Your task to perform on an android device: turn on bluetooth scan Image 0: 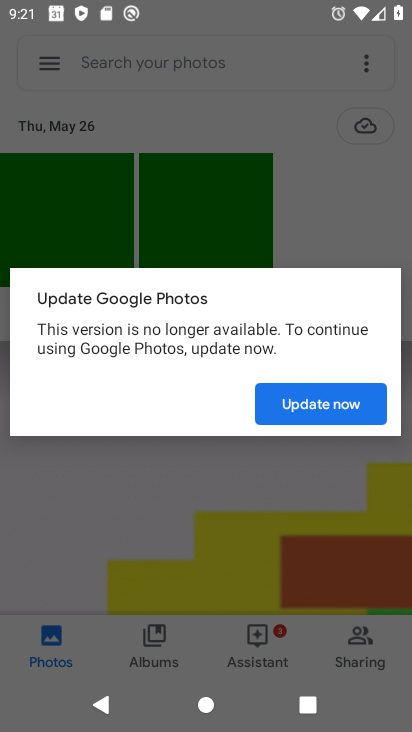
Step 0: press home button
Your task to perform on an android device: turn on bluetooth scan Image 1: 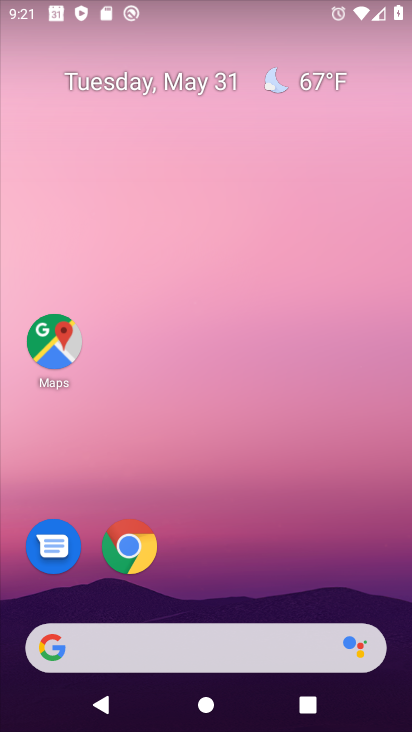
Step 1: drag from (212, 589) to (396, 9)
Your task to perform on an android device: turn on bluetooth scan Image 2: 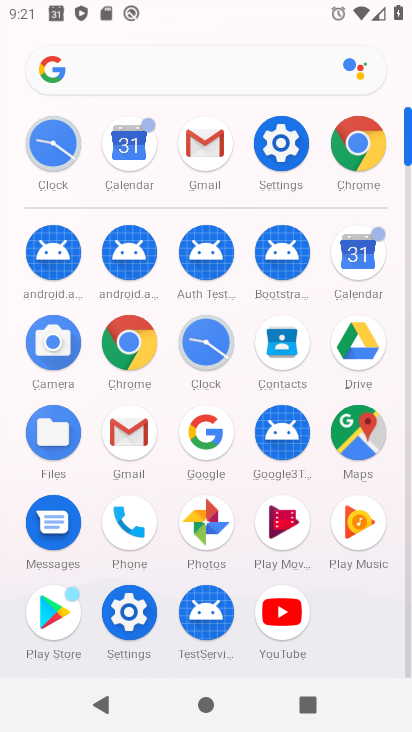
Step 2: click (278, 150)
Your task to perform on an android device: turn on bluetooth scan Image 3: 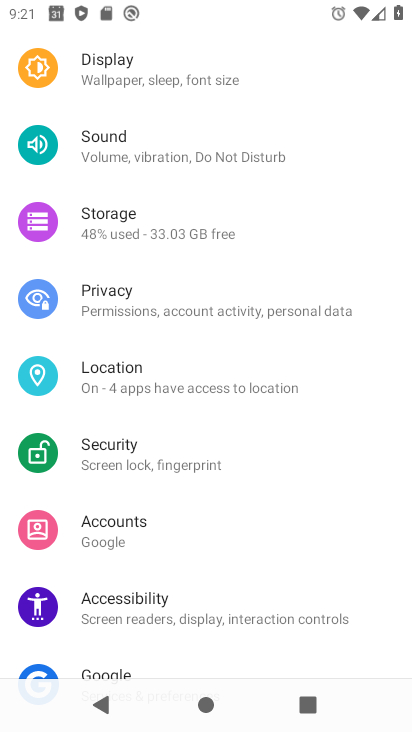
Step 3: click (161, 390)
Your task to perform on an android device: turn on bluetooth scan Image 4: 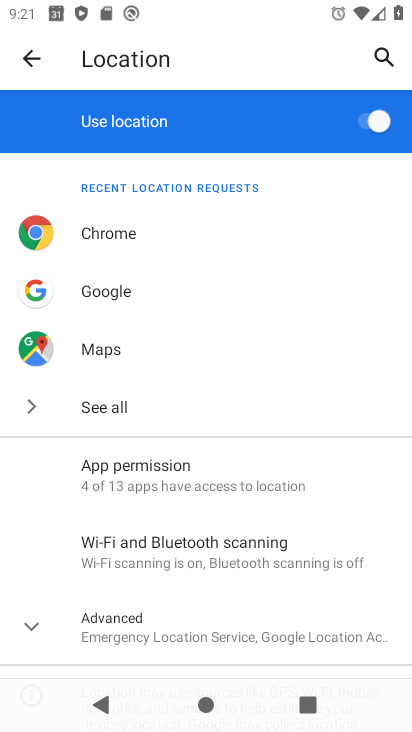
Step 4: click (181, 554)
Your task to perform on an android device: turn on bluetooth scan Image 5: 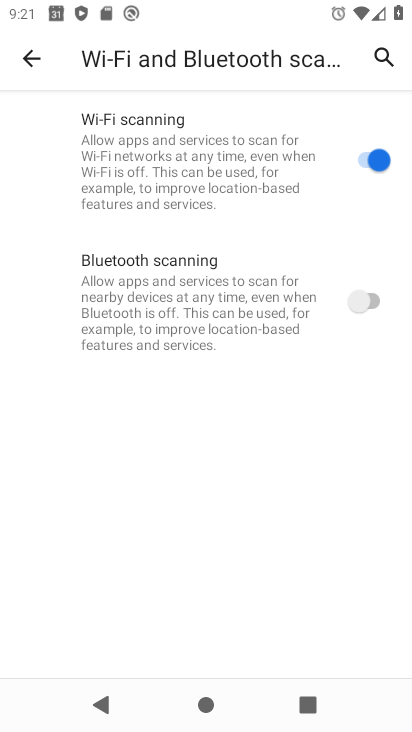
Step 5: click (378, 315)
Your task to perform on an android device: turn on bluetooth scan Image 6: 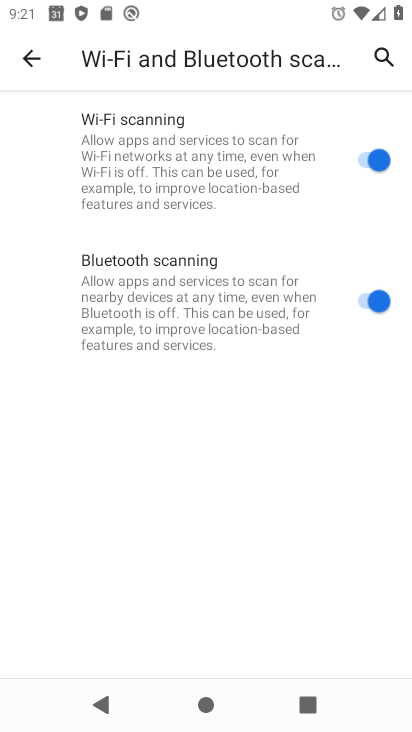
Step 6: task complete